Your task to perform on an android device: turn off sleep mode Image 0: 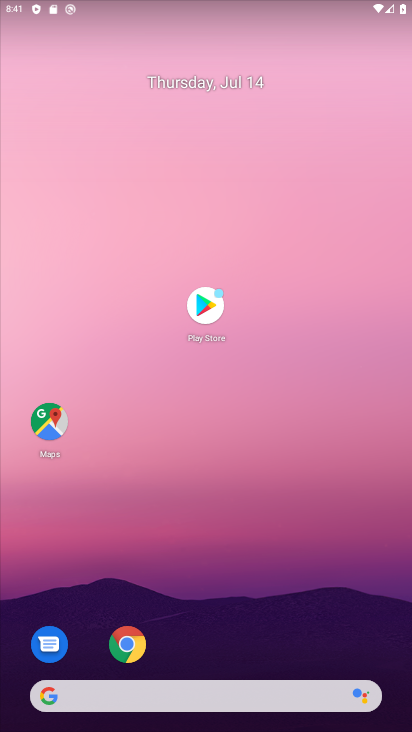
Step 0: drag from (194, 643) to (183, 229)
Your task to perform on an android device: turn off sleep mode Image 1: 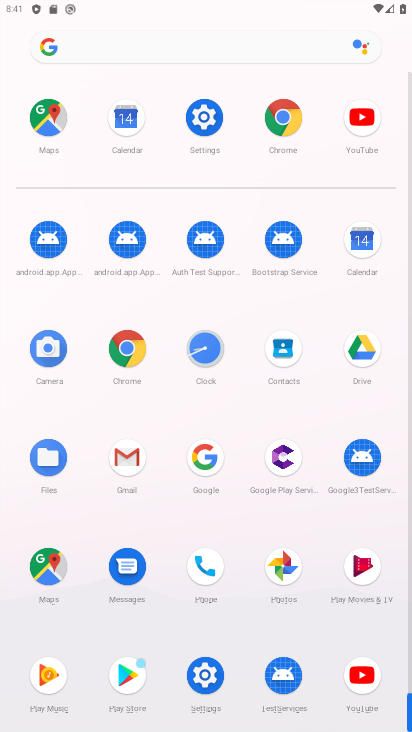
Step 1: click (194, 674)
Your task to perform on an android device: turn off sleep mode Image 2: 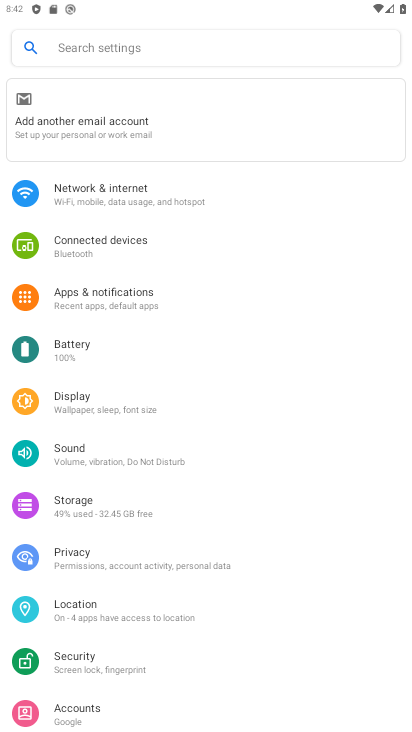
Step 2: click (82, 396)
Your task to perform on an android device: turn off sleep mode Image 3: 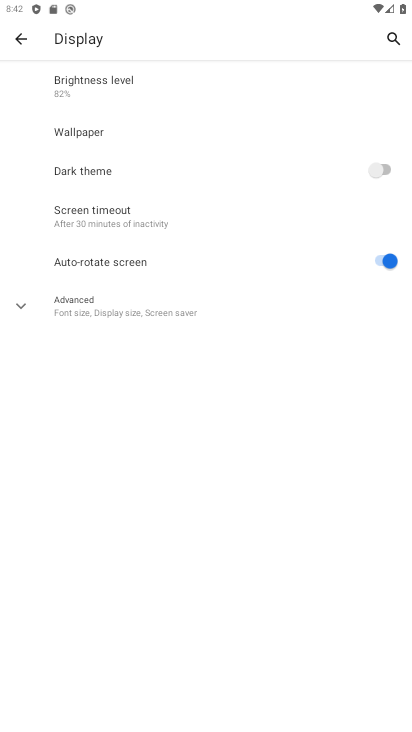
Step 3: click (196, 202)
Your task to perform on an android device: turn off sleep mode Image 4: 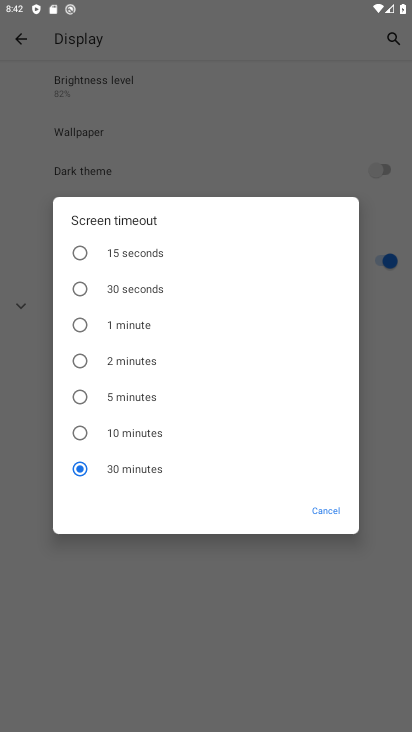
Step 4: task complete